Your task to perform on an android device: turn on the 12-hour format for clock Image 0: 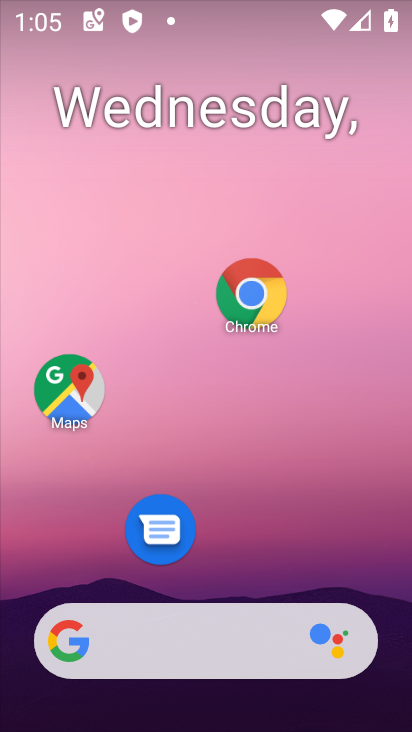
Step 0: drag from (271, 402) to (268, 197)
Your task to perform on an android device: turn on the 12-hour format for clock Image 1: 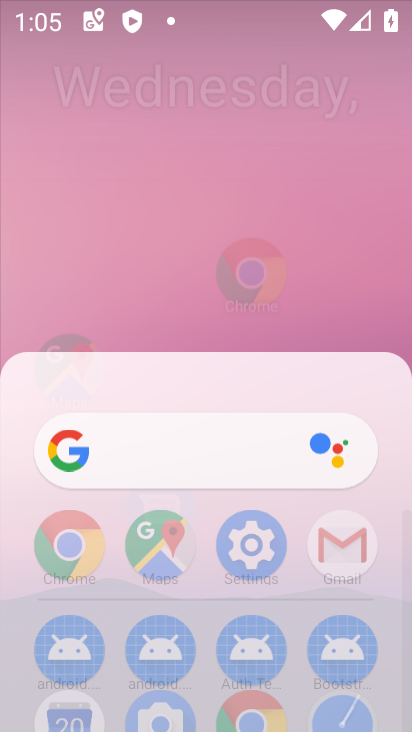
Step 1: click (274, 89)
Your task to perform on an android device: turn on the 12-hour format for clock Image 2: 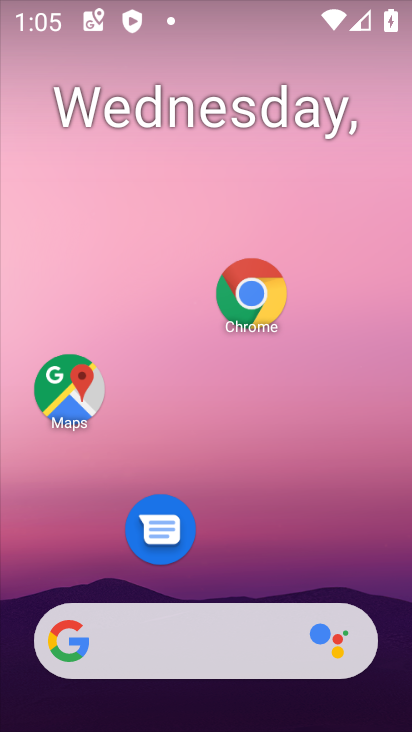
Step 2: drag from (241, 509) to (219, 139)
Your task to perform on an android device: turn on the 12-hour format for clock Image 3: 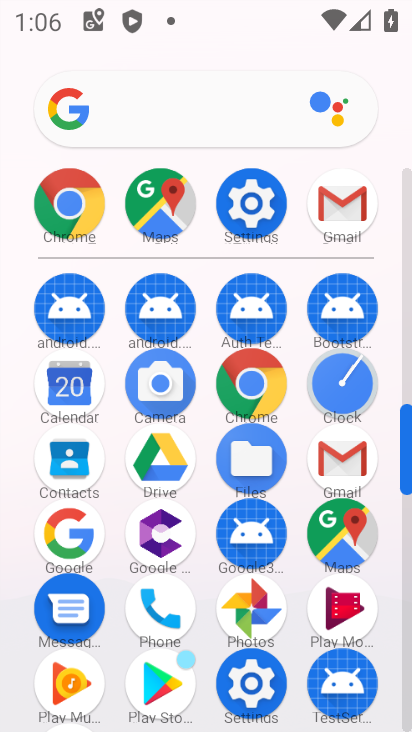
Step 3: click (340, 399)
Your task to perform on an android device: turn on the 12-hour format for clock Image 4: 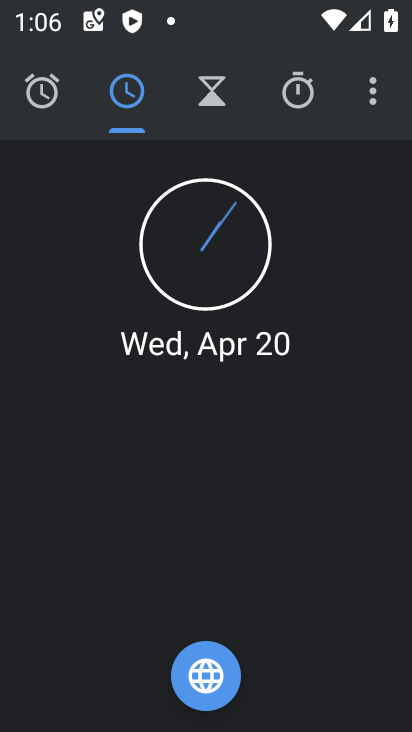
Step 4: click (367, 103)
Your task to perform on an android device: turn on the 12-hour format for clock Image 5: 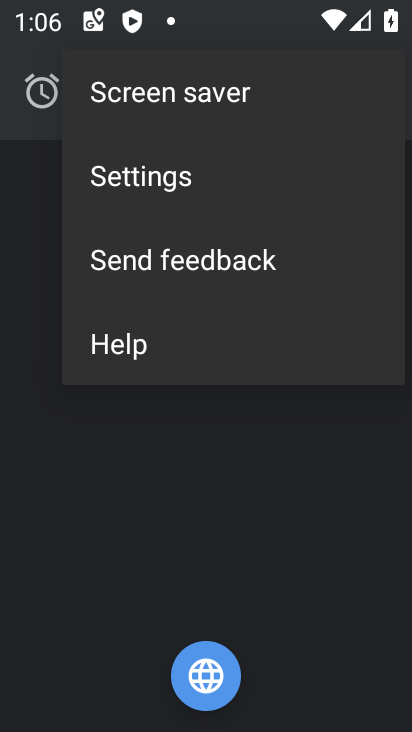
Step 5: click (228, 189)
Your task to perform on an android device: turn on the 12-hour format for clock Image 6: 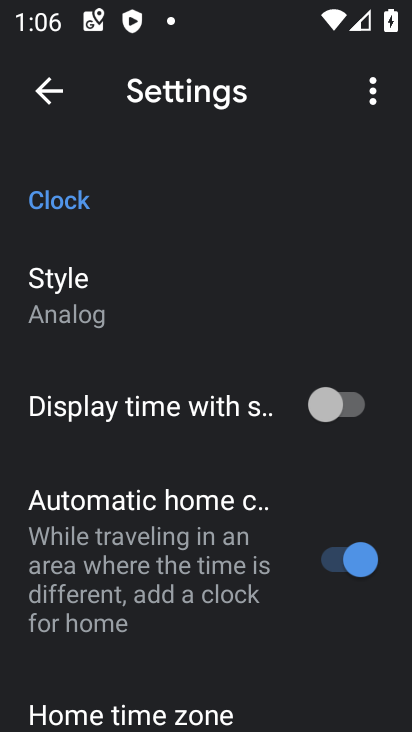
Step 6: drag from (98, 592) to (192, 267)
Your task to perform on an android device: turn on the 12-hour format for clock Image 7: 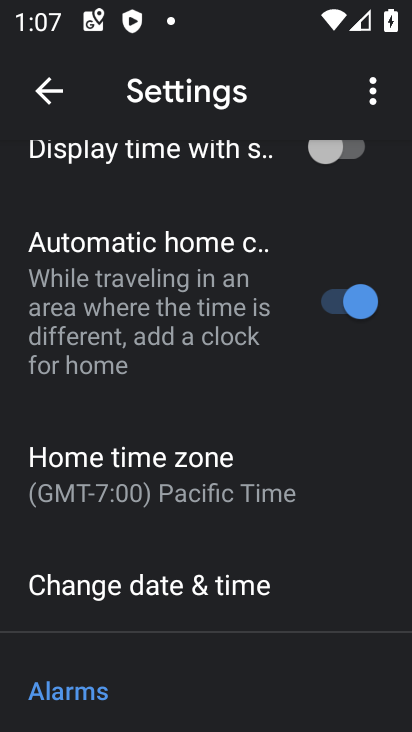
Step 7: click (232, 574)
Your task to perform on an android device: turn on the 12-hour format for clock Image 8: 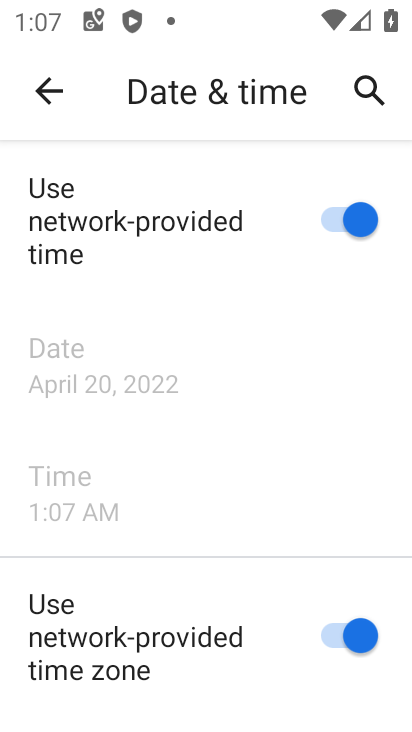
Step 8: task complete